Your task to perform on an android device: Show me popular games on the Play Store Image 0: 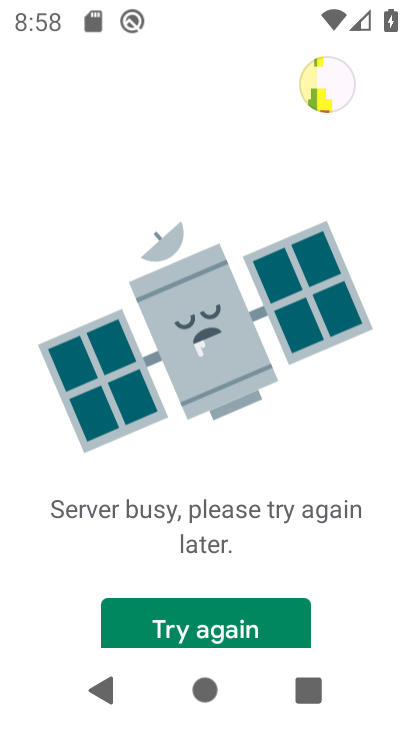
Step 0: press home button
Your task to perform on an android device: Show me popular games on the Play Store Image 1: 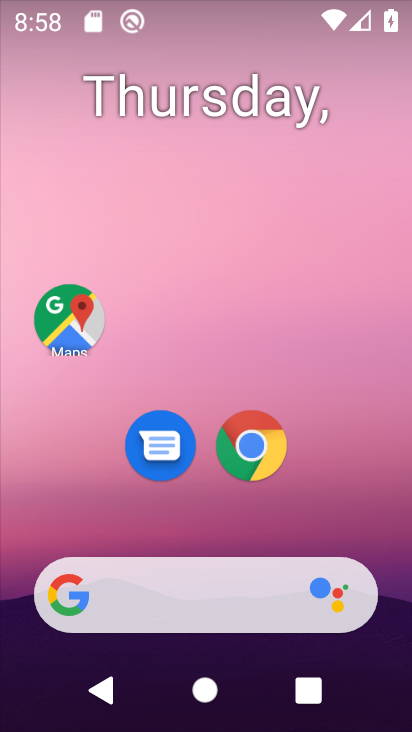
Step 1: drag from (392, 571) to (391, 3)
Your task to perform on an android device: Show me popular games on the Play Store Image 2: 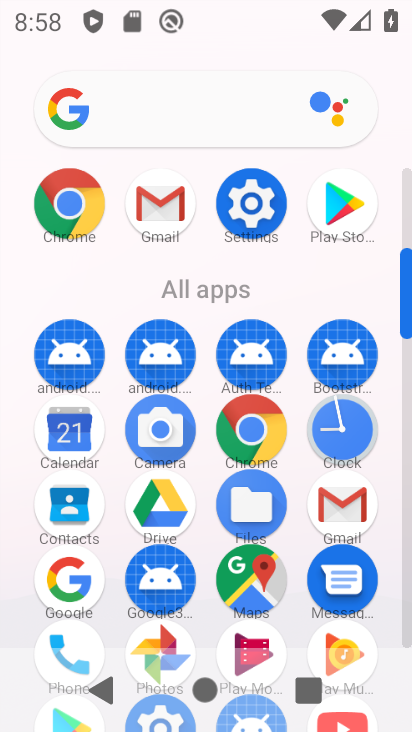
Step 2: click (333, 200)
Your task to perform on an android device: Show me popular games on the Play Store Image 3: 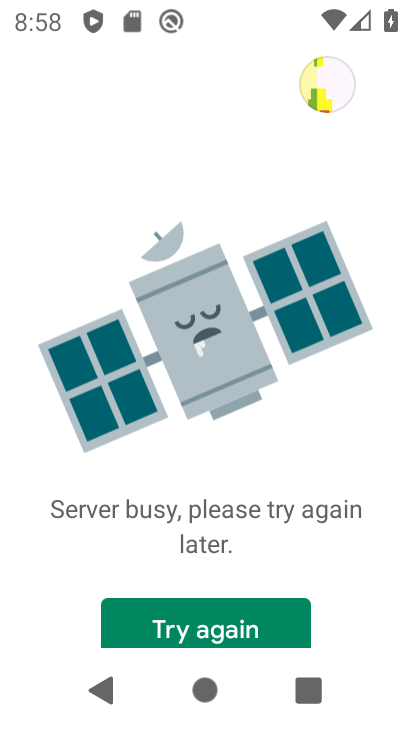
Step 3: task complete